Your task to perform on an android device: empty trash in the gmail app Image 0: 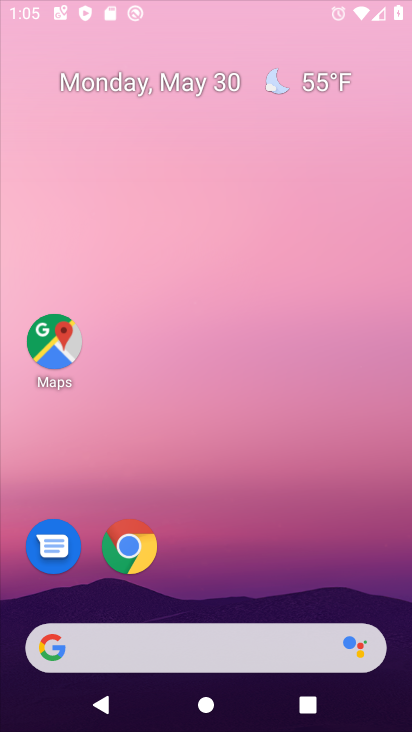
Step 0: press home button
Your task to perform on an android device: empty trash in the gmail app Image 1: 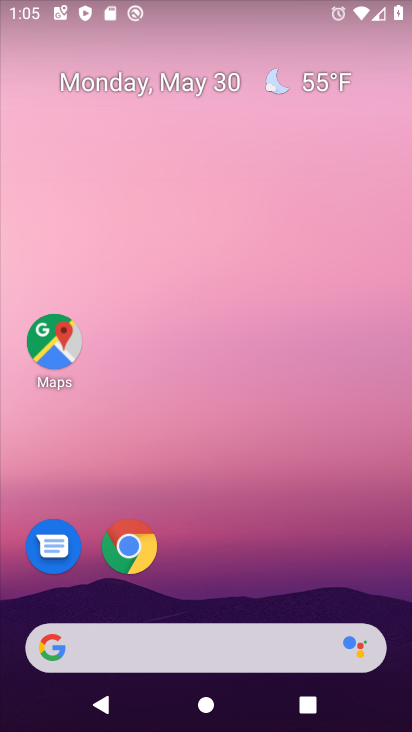
Step 1: drag from (330, 600) to (317, 251)
Your task to perform on an android device: empty trash in the gmail app Image 2: 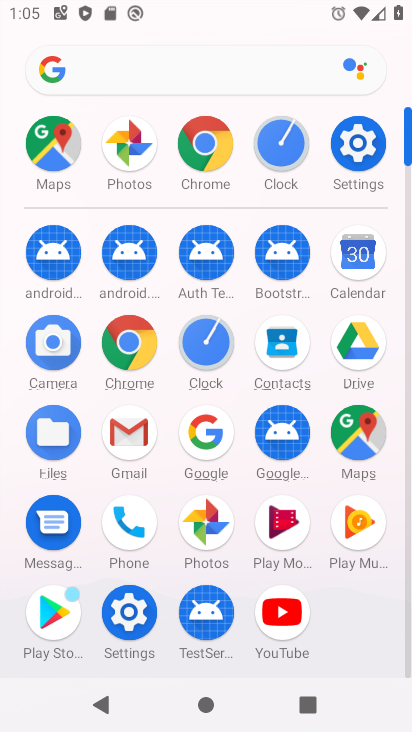
Step 2: click (133, 436)
Your task to perform on an android device: empty trash in the gmail app Image 3: 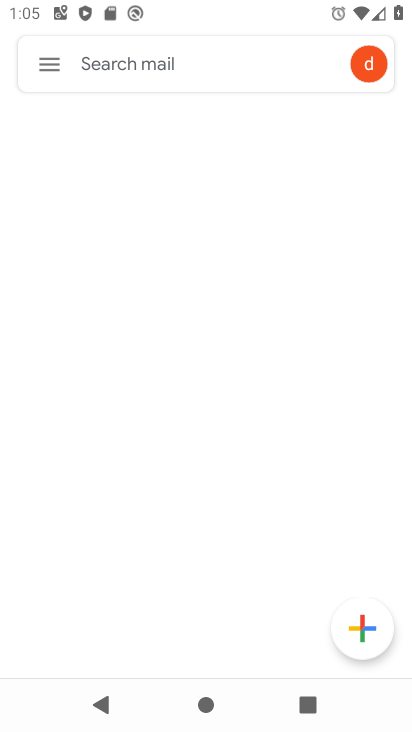
Step 3: click (44, 70)
Your task to perform on an android device: empty trash in the gmail app Image 4: 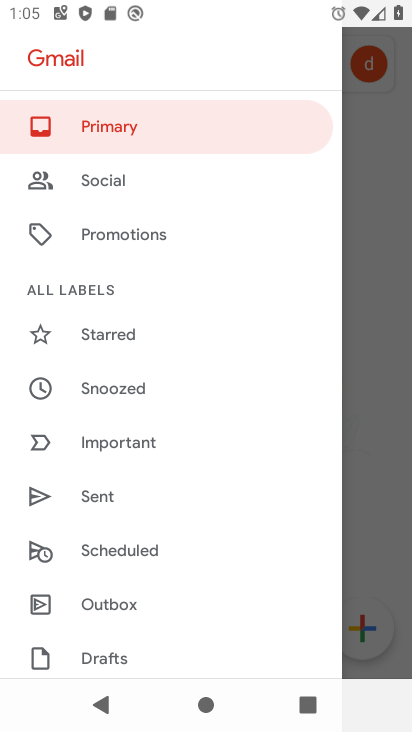
Step 4: drag from (246, 549) to (210, 178)
Your task to perform on an android device: empty trash in the gmail app Image 5: 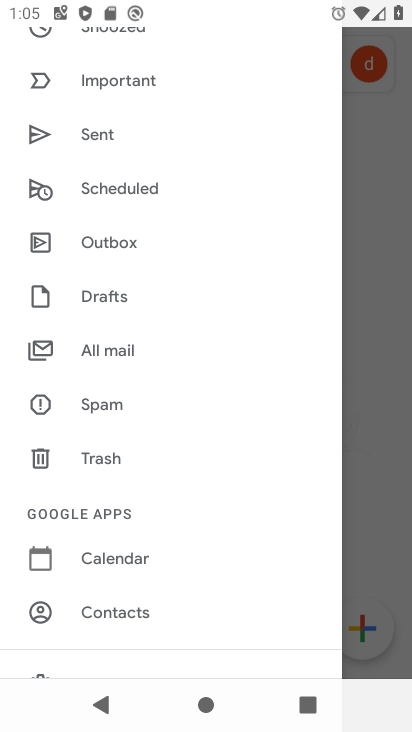
Step 5: click (103, 462)
Your task to perform on an android device: empty trash in the gmail app Image 6: 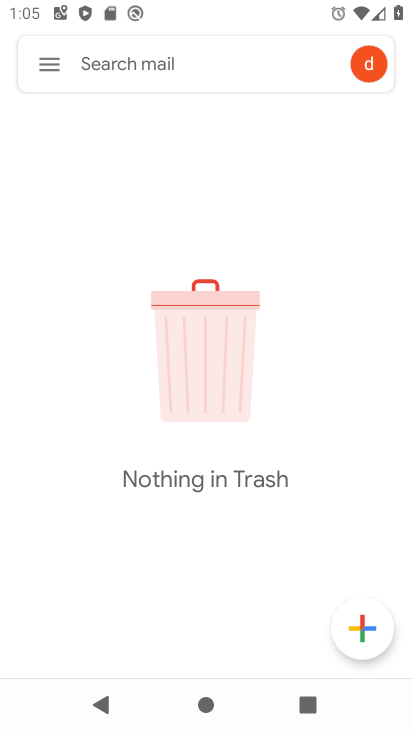
Step 6: task complete